Your task to perform on an android device: What's the weather? Image 0: 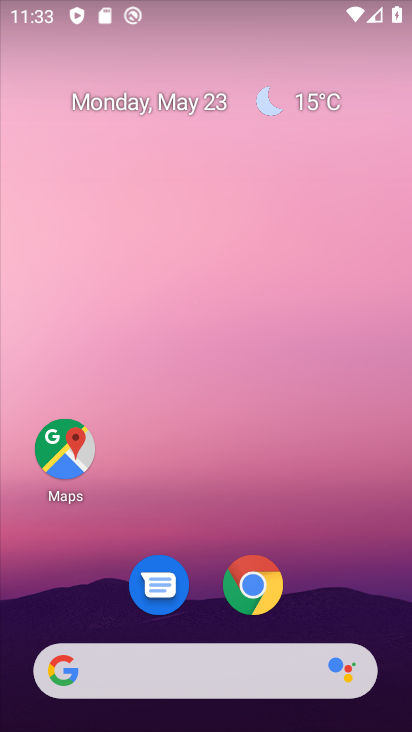
Step 0: click (235, 684)
Your task to perform on an android device: What's the weather? Image 1: 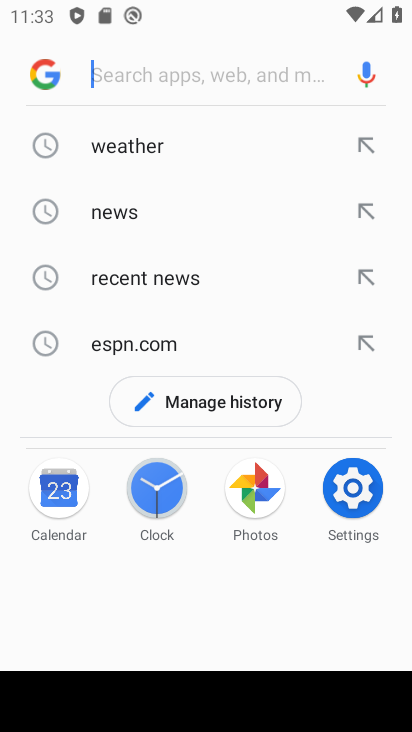
Step 1: click (118, 144)
Your task to perform on an android device: What's the weather? Image 2: 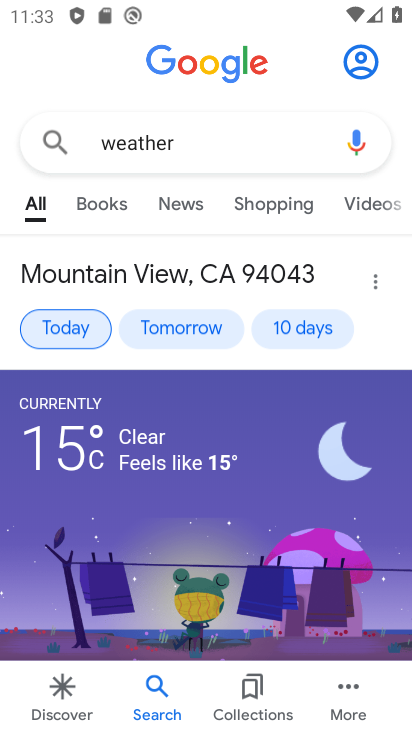
Step 2: click (82, 330)
Your task to perform on an android device: What's the weather? Image 3: 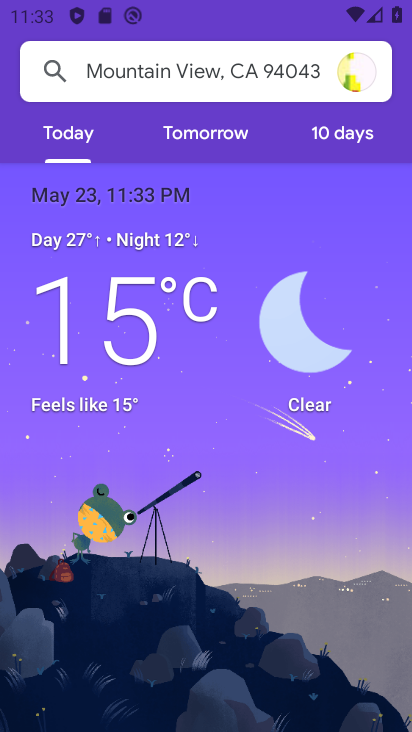
Step 3: task complete